Your task to perform on an android device: change alarm snooze length Image 0: 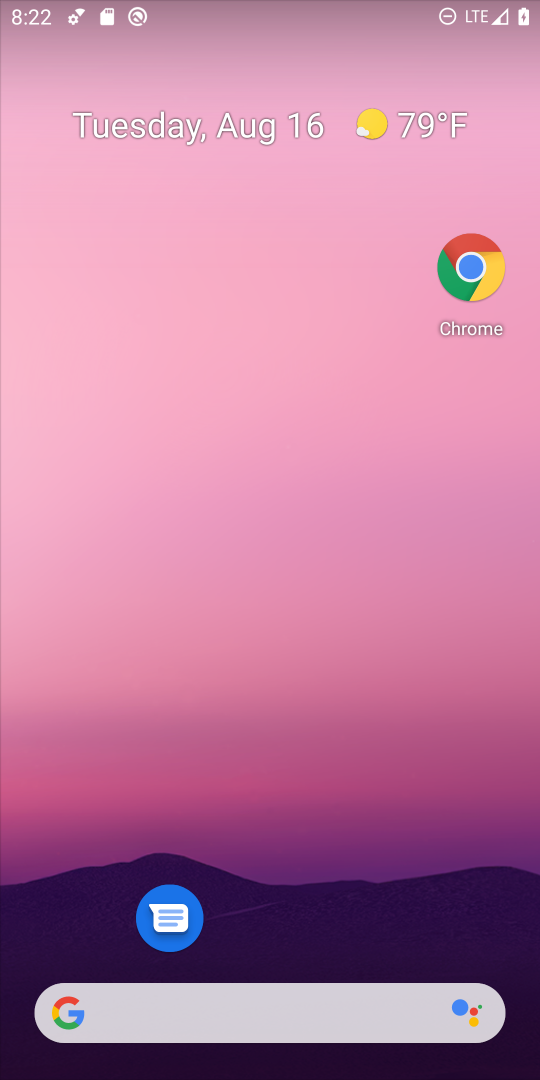
Step 0: drag from (215, 971) to (288, 46)
Your task to perform on an android device: change alarm snooze length Image 1: 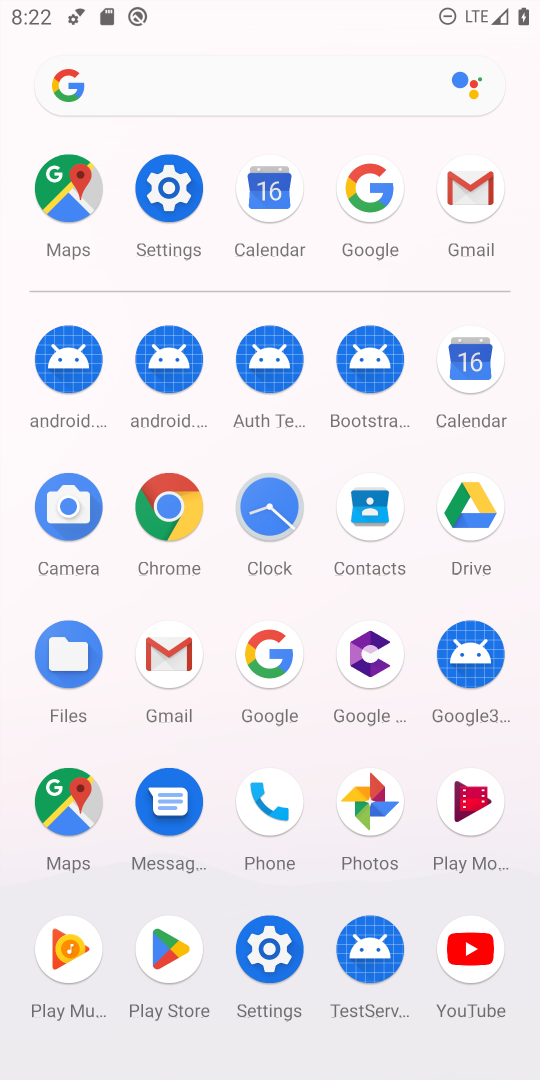
Step 1: click (288, 510)
Your task to perform on an android device: change alarm snooze length Image 2: 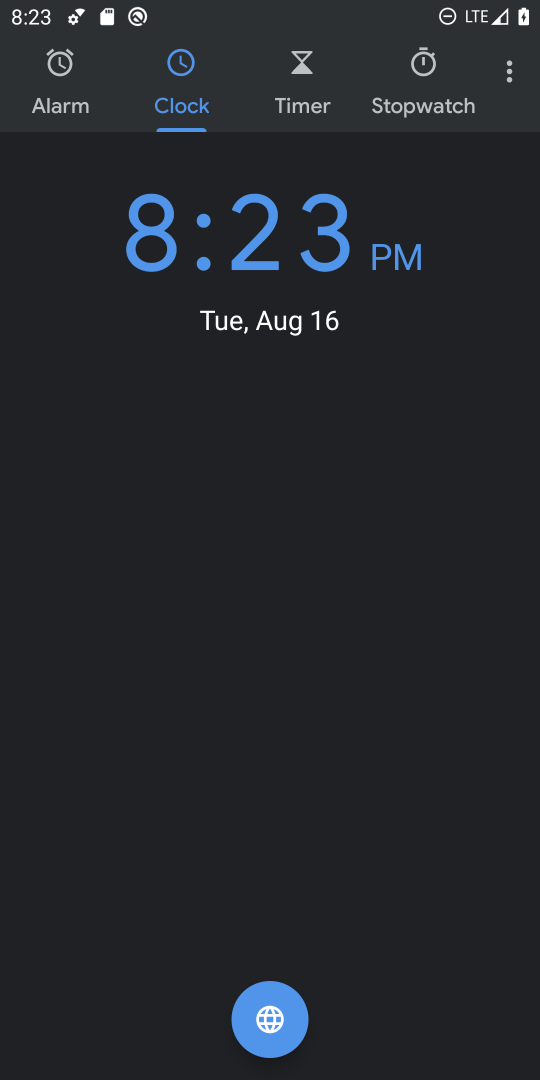
Step 2: click (518, 82)
Your task to perform on an android device: change alarm snooze length Image 3: 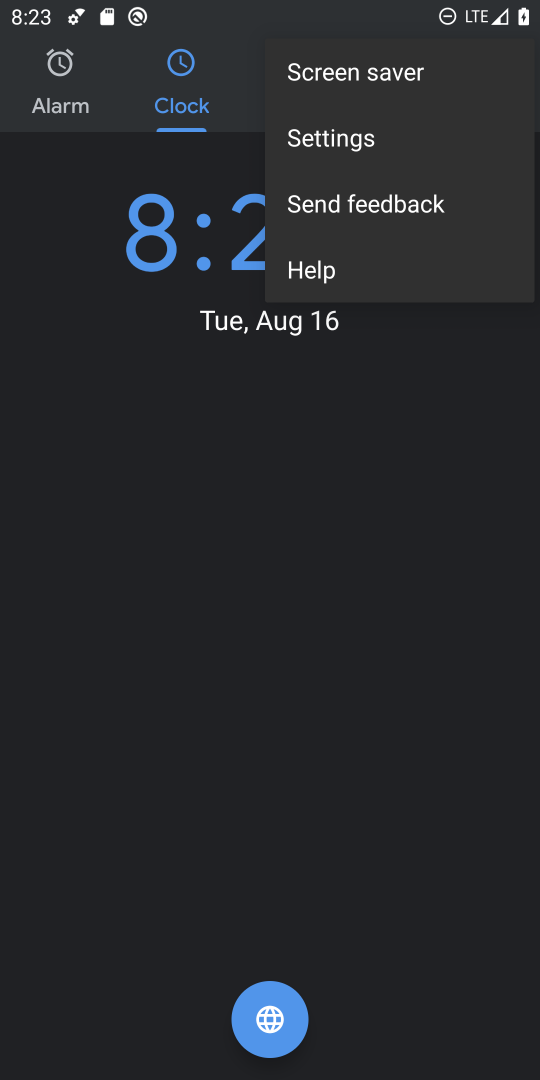
Step 3: click (385, 152)
Your task to perform on an android device: change alarm snooze length Image 4: 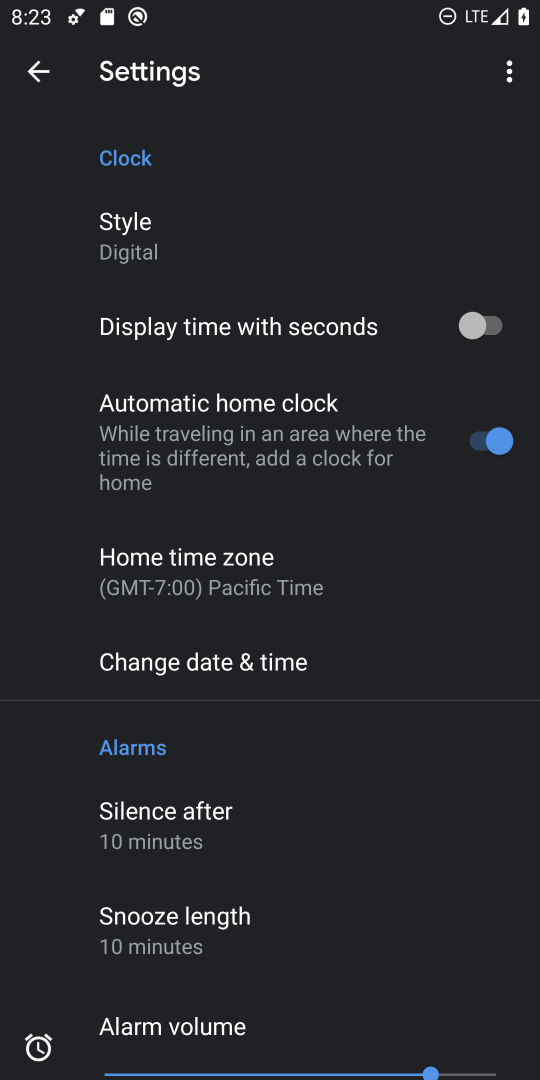
Step 4: drag from (234, 853) to (271, 219)
Your task to perform on an android device: change alarm snooze length Image 5: 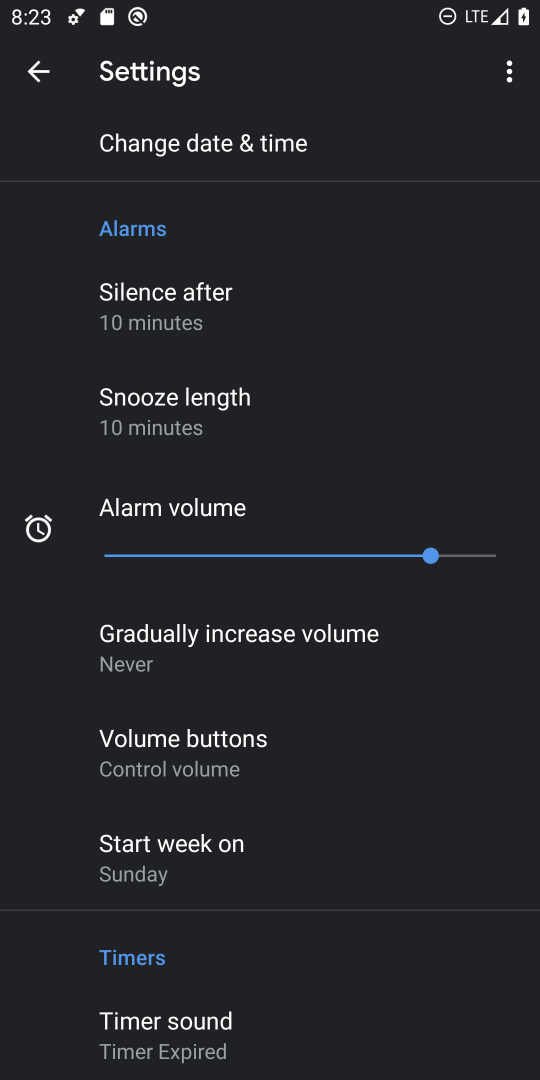
Step 5: drag from (250, 456) to (263, 341)
Your task to perform on an android device: change alarm snooze length Image 6: 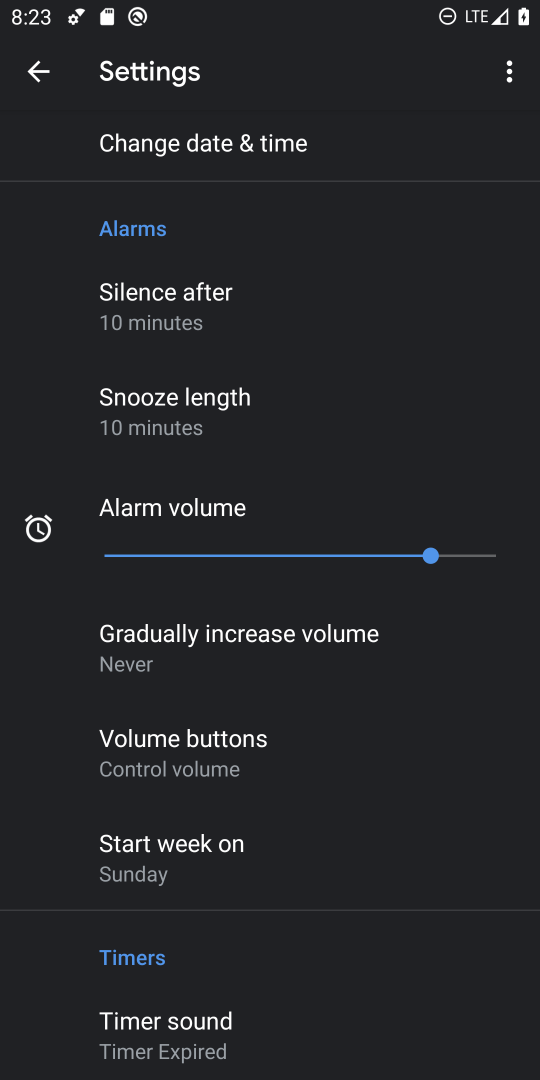
Step 6: drag from (271, 990) to (229, 332)
Your task to perform on an android device: change alarm snooze length Image 7: 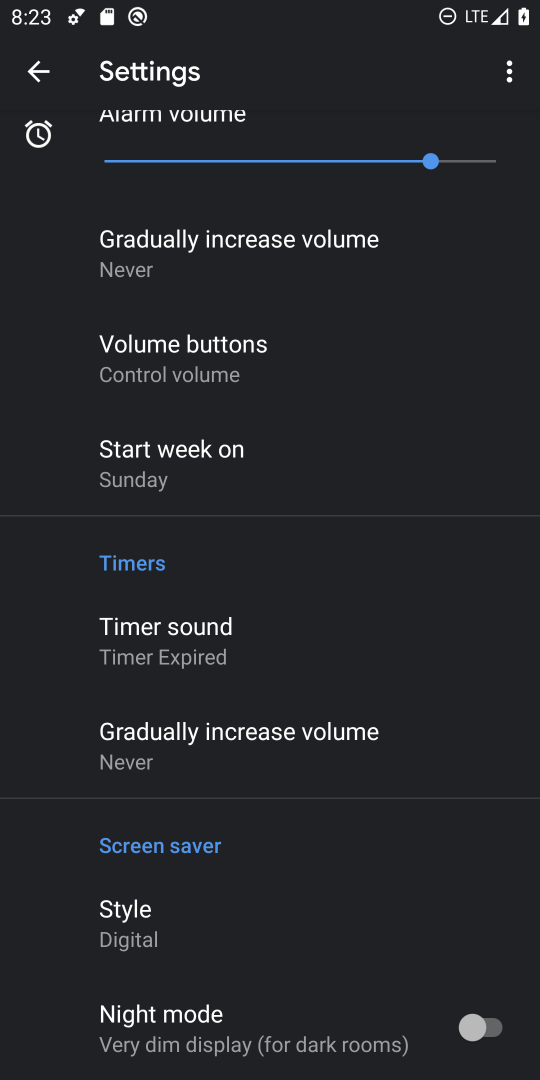
Step 7: drag from (301, 593) to (306, 1009)
Your task to perform on an android device: change alarm snooze length Image 8: 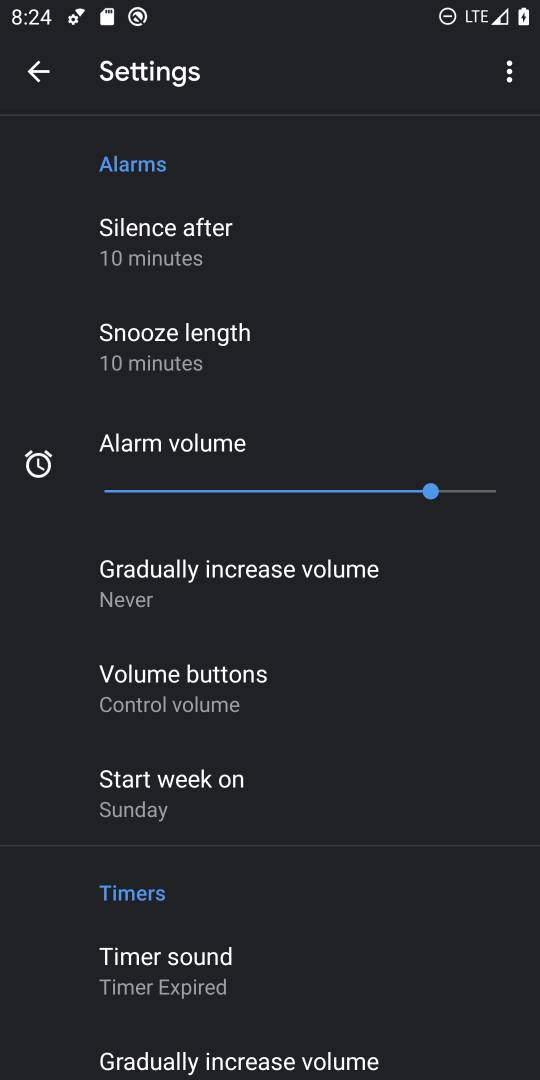
Step 8: click (193, 334)
Your task to perform on an android device: change alarm snooze length Image 9: 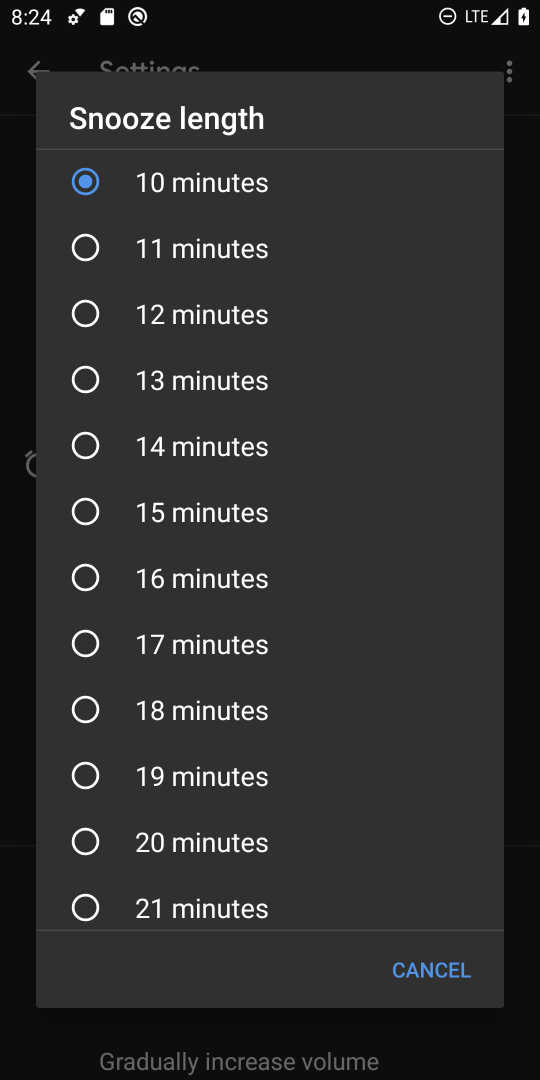
Step 9: click (176, 315)
Your task to perform on an android device: change alarm snooze length Image 10: 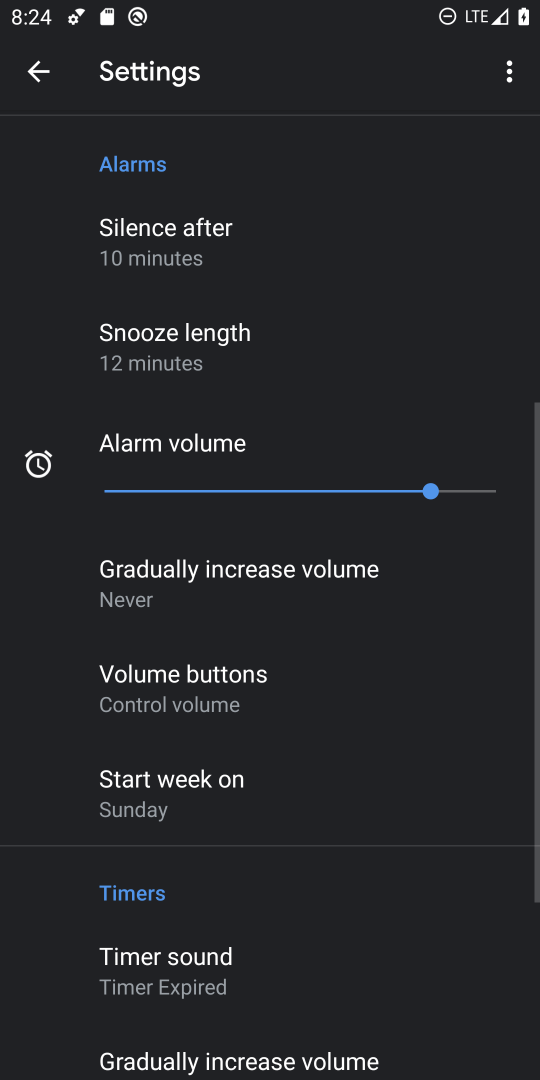
Step 10: task complete